Your task to perform on an android device: Open wifi settings Image 0: 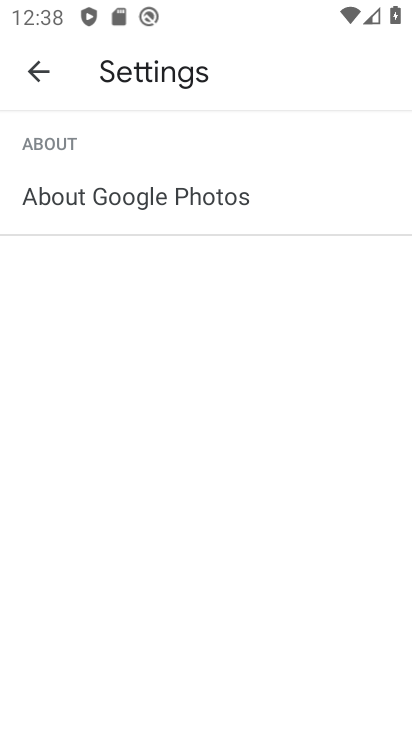
Step 0: task complete